Your task to perform on an android device: change your default location settings in chrome Image 0: 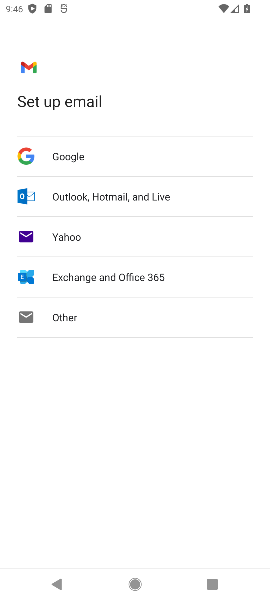
Step 0: press home button
Your task to perform on an android device: change your default location settings in chrome Image 1: 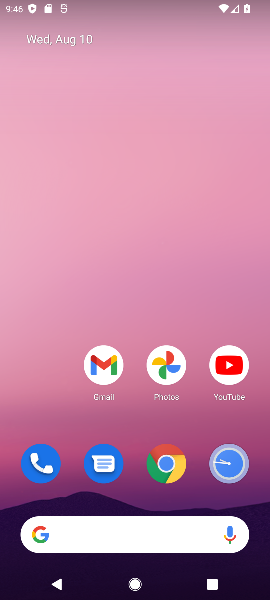
Step 1: drag from (15, 579) to (138, 231)
Your task to perform on an android device: change your default location settings in chrome Image 2: 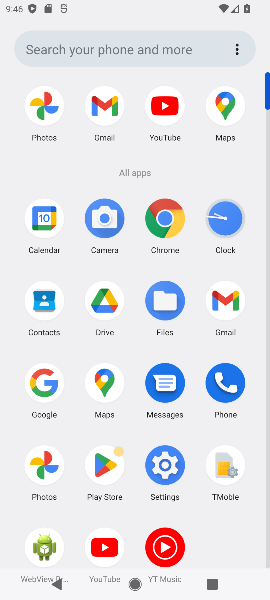
Step 2: click (172, 466)
Your task to perform on an android device: change your default location settings in chrome Image 3: 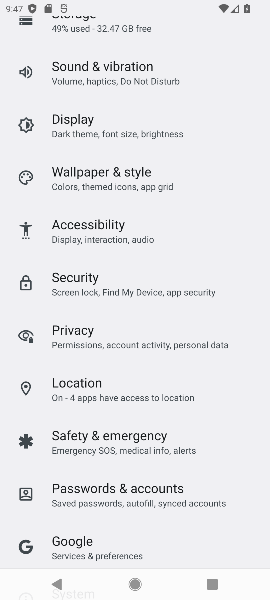
Step 3: drag from (194, 62) to (198, 196)
Your task to perform on an android device: change your default location settings in chrome Image 4: 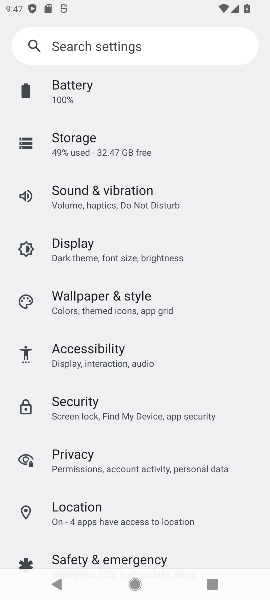
Step 4: click (92, 507)
Your task to perform on an android device: change your default location settings in chrome Image 5: 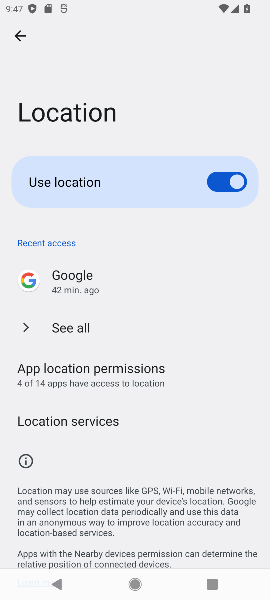
Step 5: task complete